Your task to perform on an android device: toggle show notifications on the lock screen Image 0: 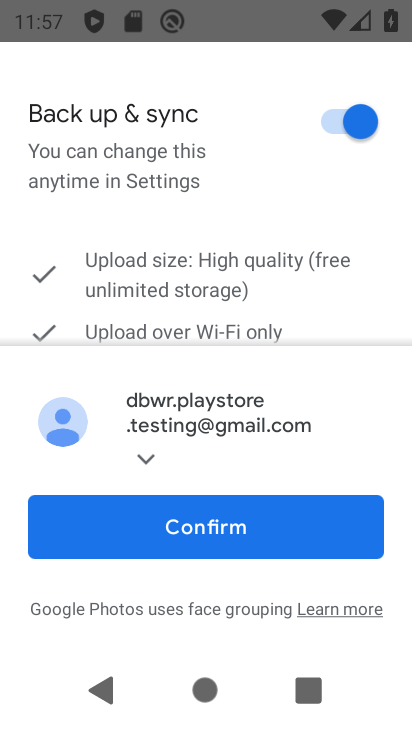
Step 0: press home button
Your task to perform on an android device: toggle show notifications on the lock screen Image 1: 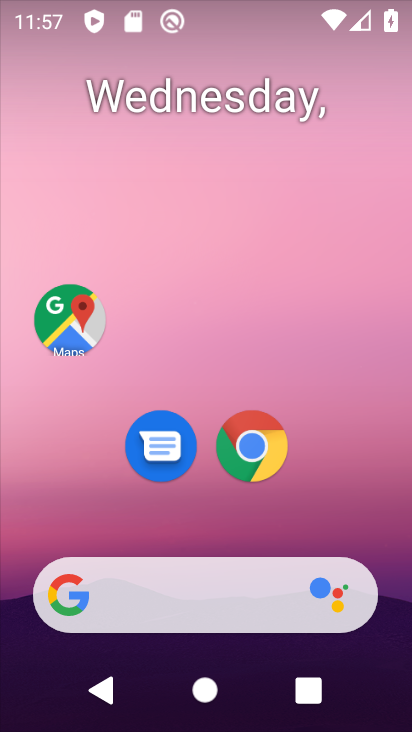
Step 1: drag from (344, 497) to (335, 13)
Your task to perform on an android device: toggle show notifications on the lock screen Image 2: 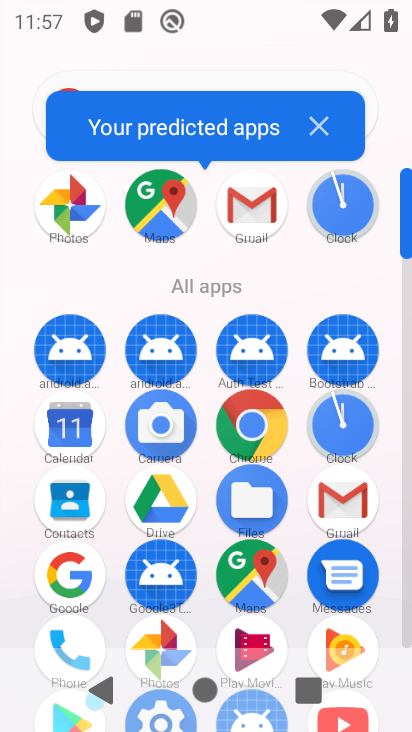
Step 2: click (404, 646)
Your task to perform on an android device: toggle show notifications on the lock screen Image 3: 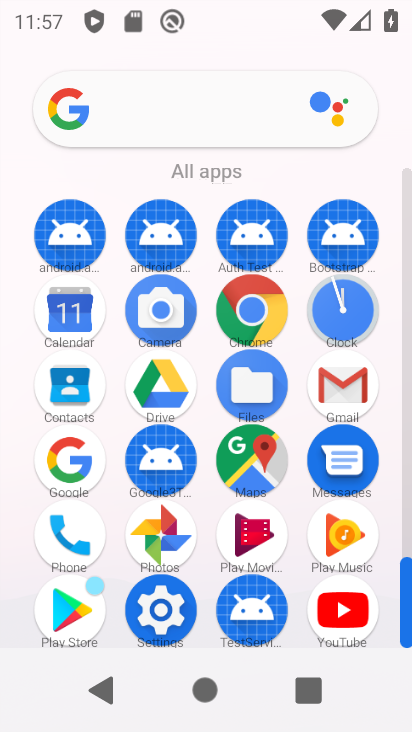
Step 3: click (148, 620)
Your task to perform on an android device: toggle show notifications on the lock screen Image 4: 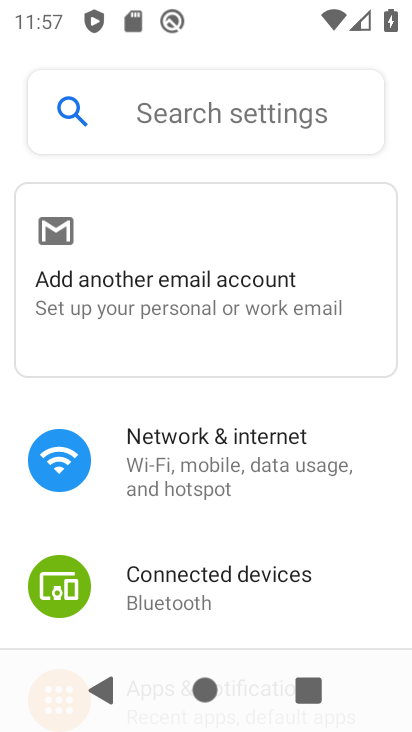
Step 4: drag from (336, 589) to (389, 220)
Your task to perform on an android device: toggle show notifications on the lock screen Image 5: 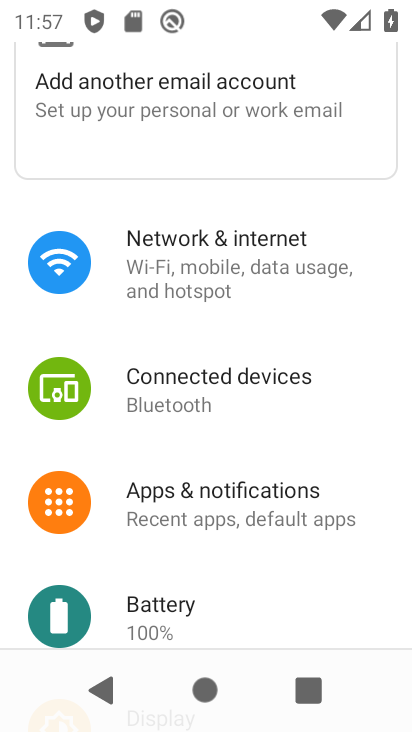
Step 5: click (356, 52)
Your task to perform on an android device: toggle show notifications on the lock screen Image 6: 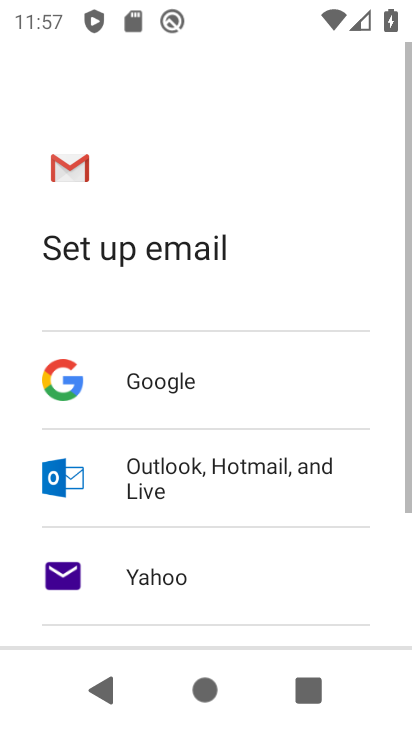
Step 6: press home button
Your task to perform on an android device: toggle show notifications on the lock screen Image 7: 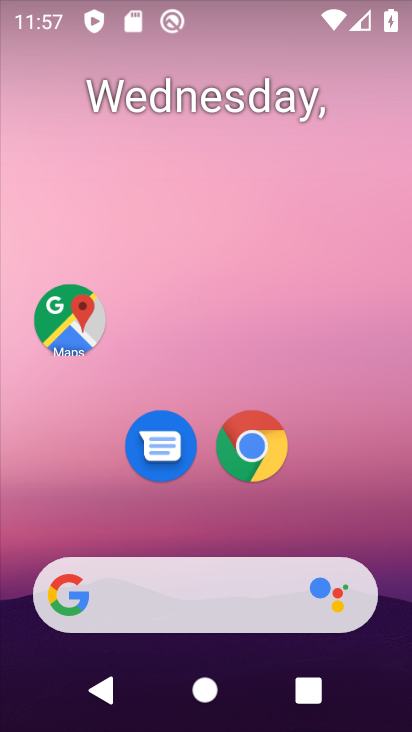
Step 7: click (359, 63)
Your task to perform on an android device: toggle show notifications on the lock screen Image 8: 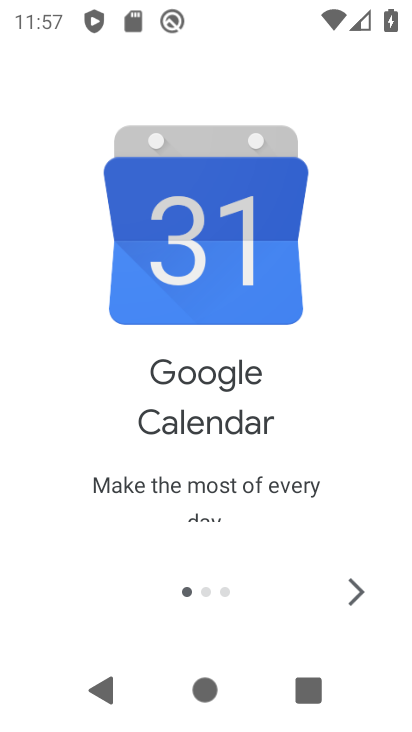
Step 8: click (360, 581)
Your task to perform on an android device: toggle show notifications on the lock screen Image 9: 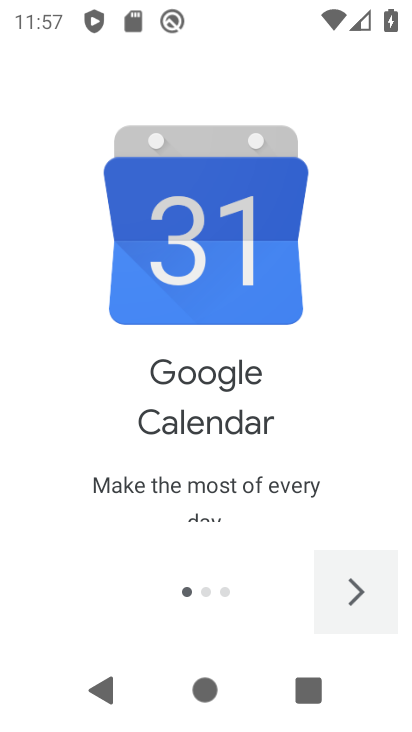
Step 9: click (360, 581)
Your task to perform on an android device: toggle show notifications on the lock screen Image 10: 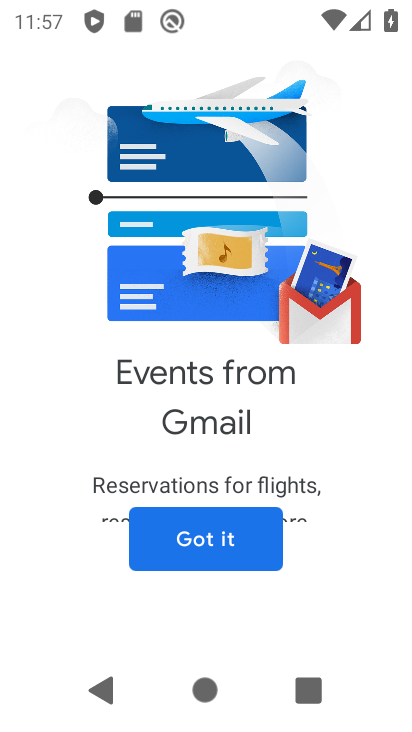
Step 10: click (213, 579)
Your task to perform on an android device: toggle show notifications on the lock screen Image 11: 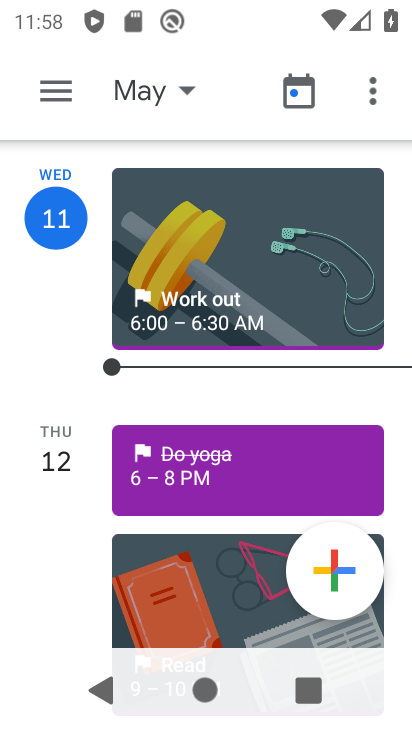
Step 11: press home button
Your task to perform on an android device: toggle show notifications on the lock screen Image 12: 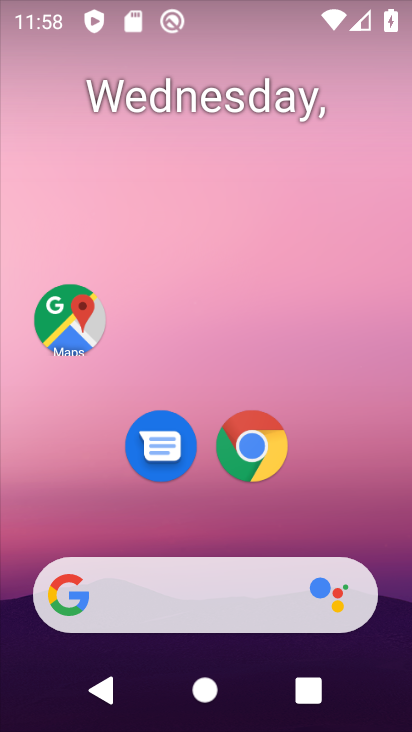
Step 12: drag from (327, 506) to (321, 0)
Your task to perform on an android device: toggle show notifications on the lock screen Image 13: 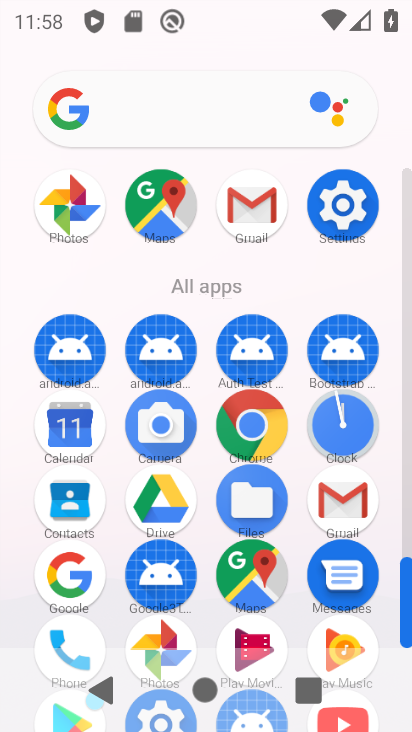
Step 13: drag from (403, 614) to (410, 661)
Your task to perform on an android device: toggle show notifications on the lock screen Image 14: 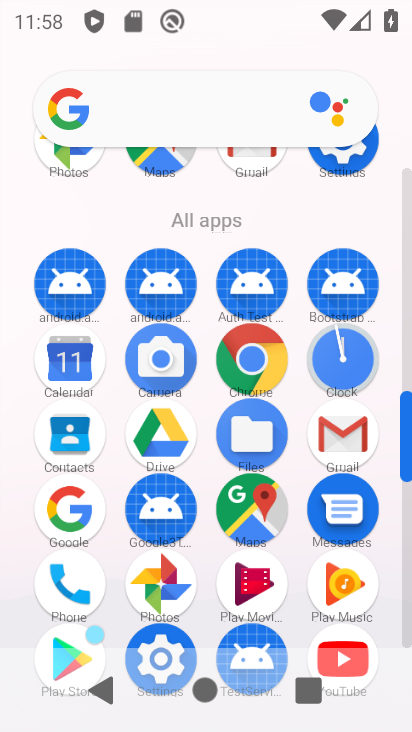
Step 14: drag from (405, 633) to (405, 686)
Your task to perform on an android device: toggle show notifications on the lock screen Image 15: 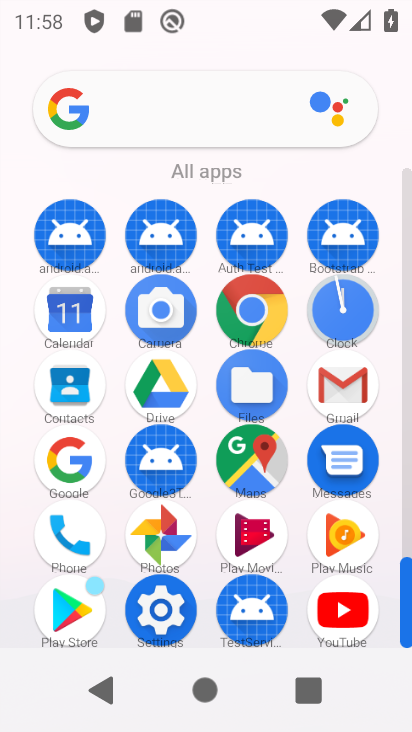
Step 15: click (152, 613)
Your task to perform on an android device: toggle show notifications on the lock screen Image 16: 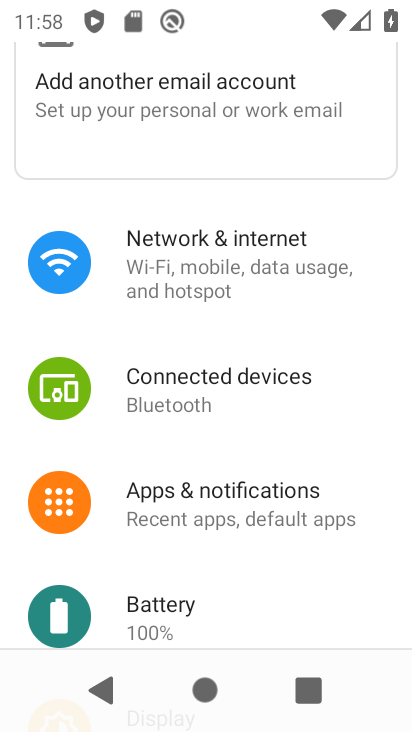
Step 16: click (197, 531)
Your task to perform on an android device: toggle show notifications on the lock screen Image 17: 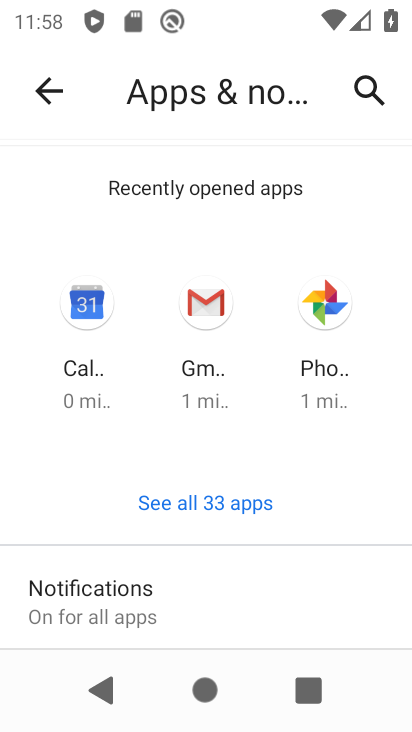
Step 17: click (123, 614)
Your task to perform on an android device: toggle show notifications on the lock screen Image 18: 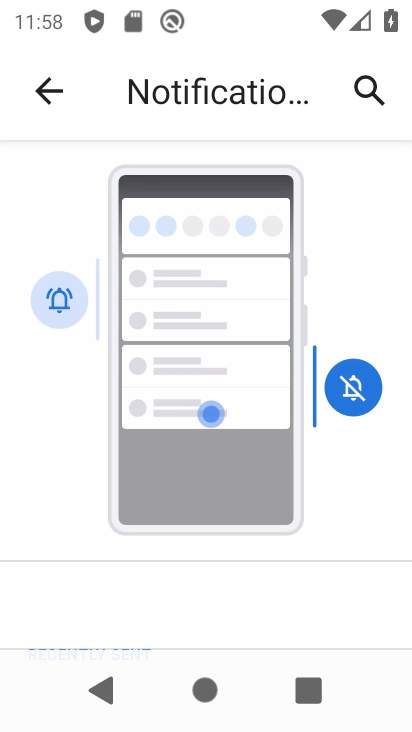
Step 18: drag from (236, 571) to (106, 136)
Your task to perform on an android device: toggle show notifications on the lock screen Image 19: 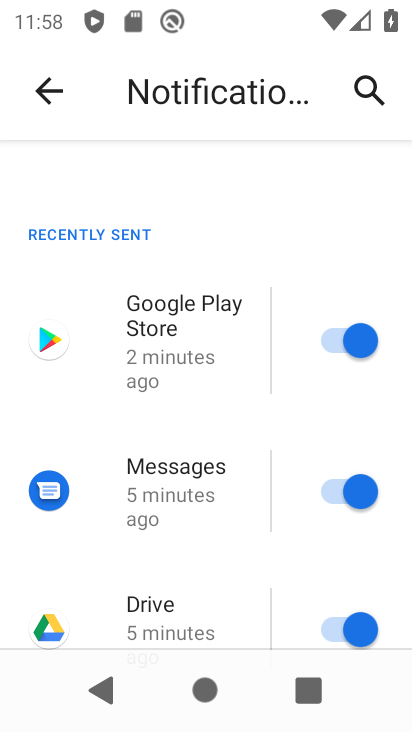
Step 19: drag from (260, 594) to (245, 197)
Your task to perform on an android device: toggle show notifications on the lock screen Image 20: 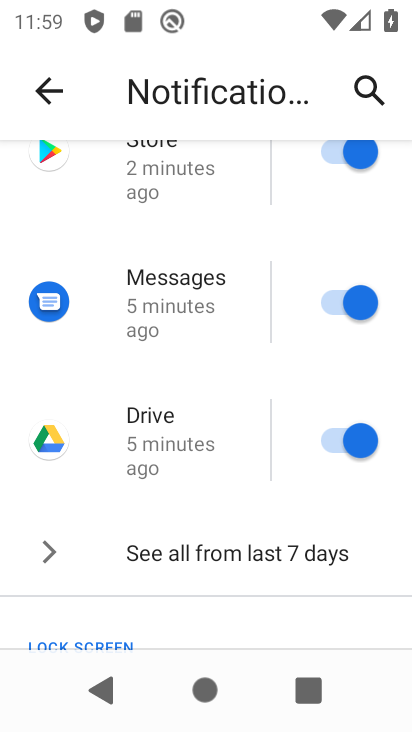
Step 20: drag from (303, 605) to (173, 42)
Your task to perform on an android device: toggle show notifications on the lock screen Image 21: 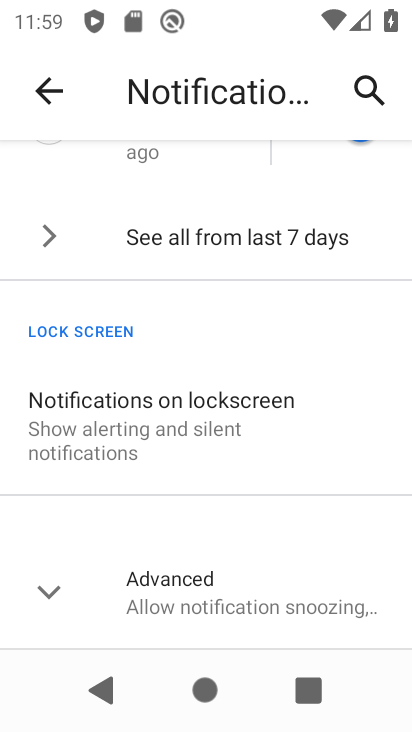
Step 21: drag from (371, 366) to (354, 324)
Your task to perform on an android device: toggle show notifications on the lock screen Image 22: 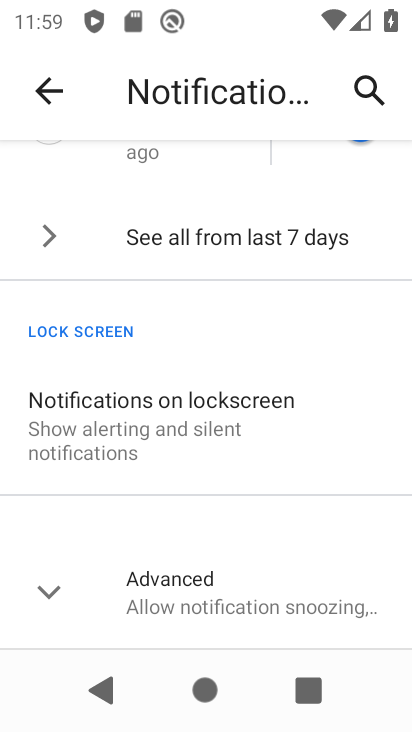
Step 22: click (261, 477)
Your task to perform on an android device: toggle show notifications on the lock screen Image 23: 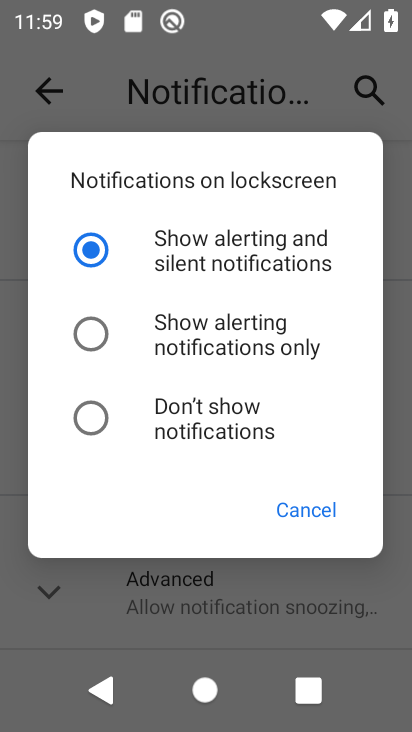
Step 23: click (235, 352)
Your task to perform on an android device: toggle show notifications on the lock screen Image 24: 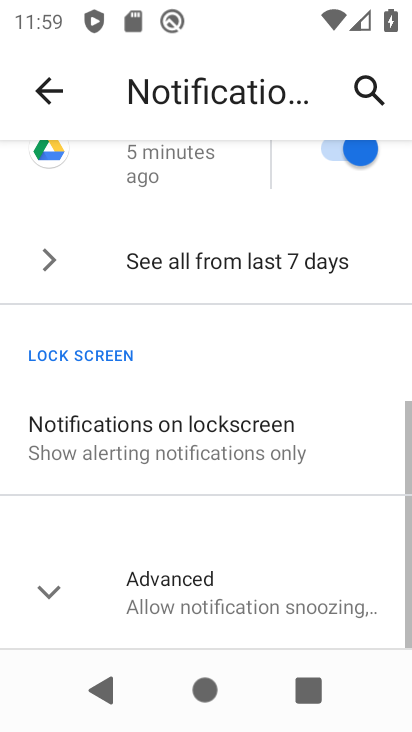
Step 24: task complete